Your task to perform on an android device: make emails show in primary in the gmail app Image 0: 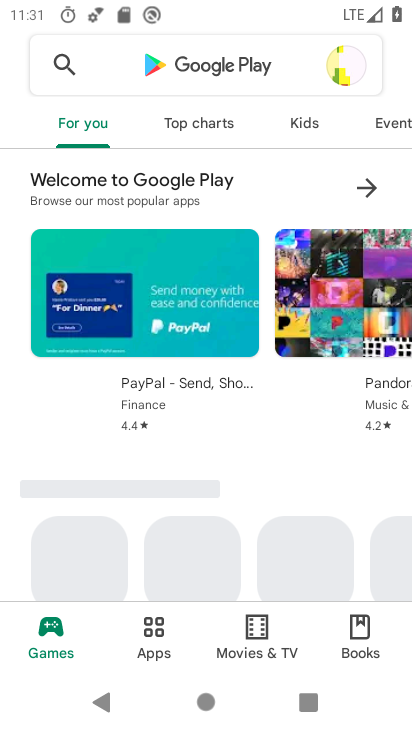
Step 0: press home button
Your task to perform on an android device: make emails show in primary in the gmail app Image 1: 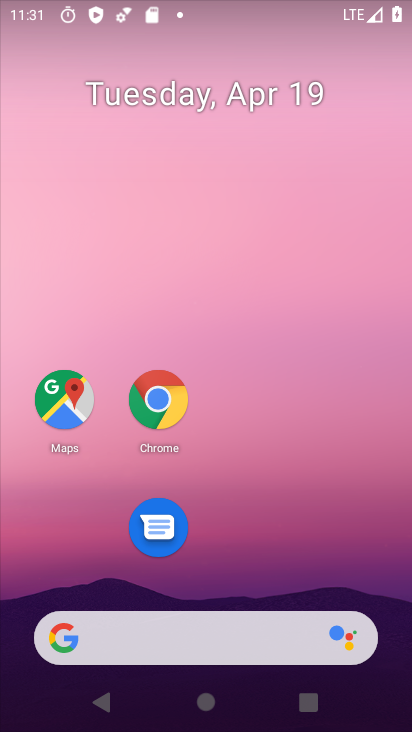
Step 1: drag from (232, 677) to (265, 4)
Your task to perform on an android device: make emails show in primary in the gmail app Image 2: 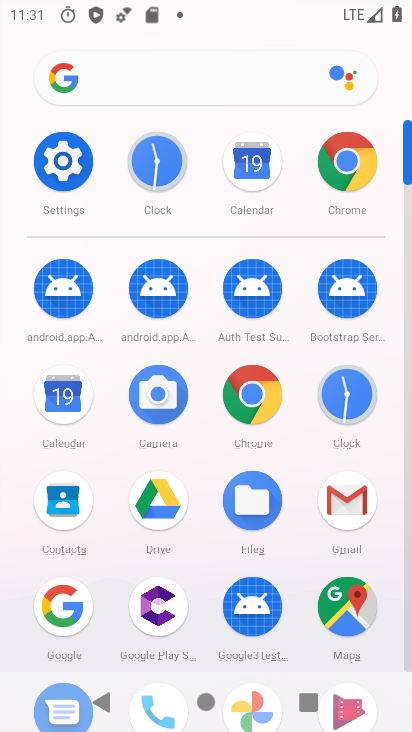
Step 2: click (332, 500)
Your task to perform on an android device: make emails show in primary in the gmail app Image 3: 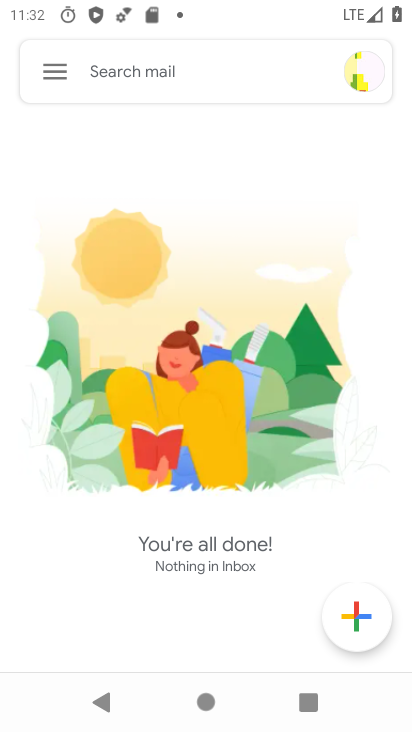
Step 3: click (38, 90)
Your task to perform on an android device: make emails show in primary in the gmail app Image 4: 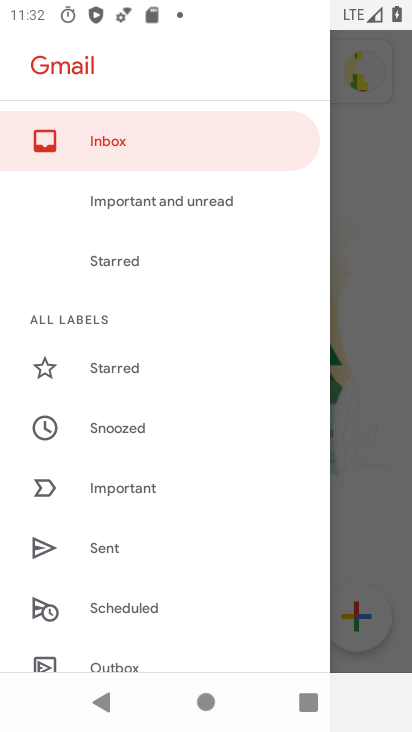
Step 4: drag from (120, 508) to (189, 93)
Your task to perform on an android device: make emails show in primary in the gmail app Image 5: 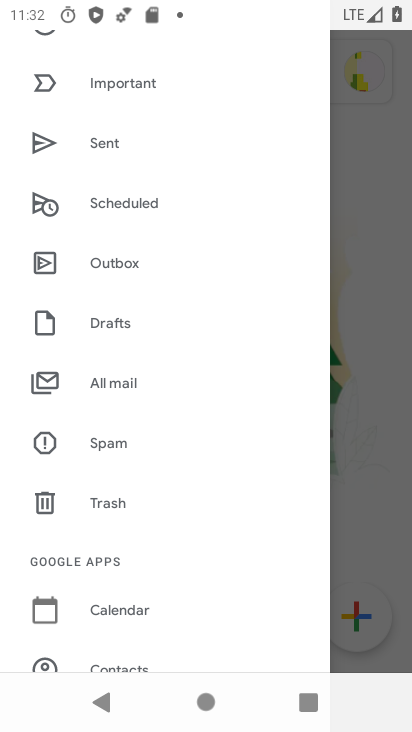
Step 5: drag from (127, 480) to (161, 258)
Your task to perform on an android device: make emails show in primary in the gmail app Image 6: 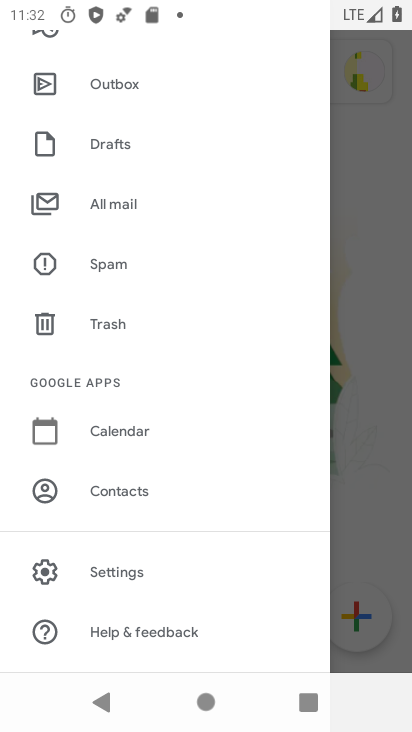
Step 6: click (109, 572)
Your task to perform on an android device: make emails show in primary in the gmail app Image 7: 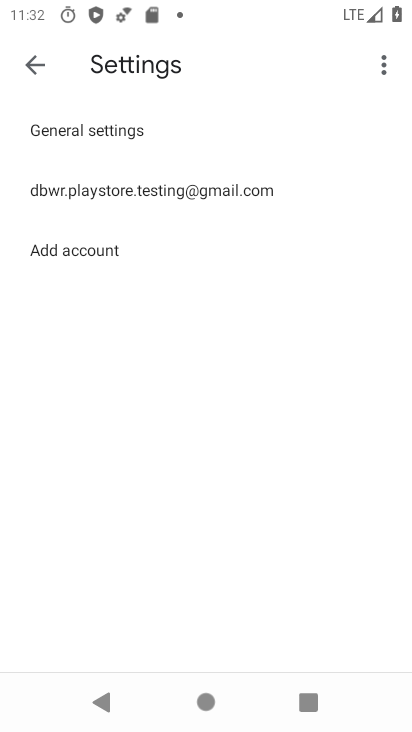
Step 7: click (168, 203)
Your task to perform on an android device: make emails show in primary in the gmail app Image 8: 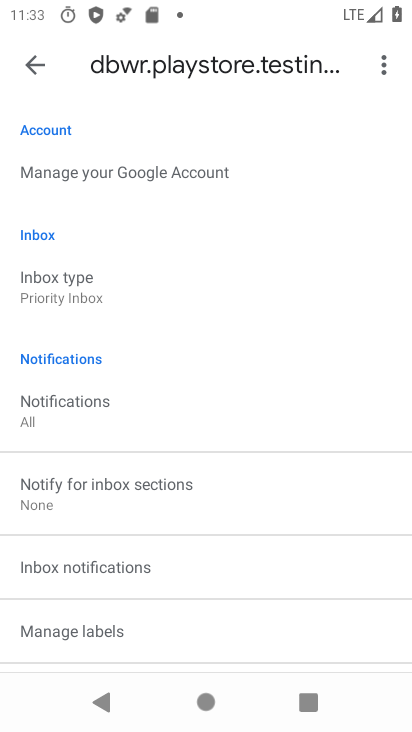
Step 8: click (108, 296)
Your task to perform on an android device: make emails show in primary in the gmail app Image 9: 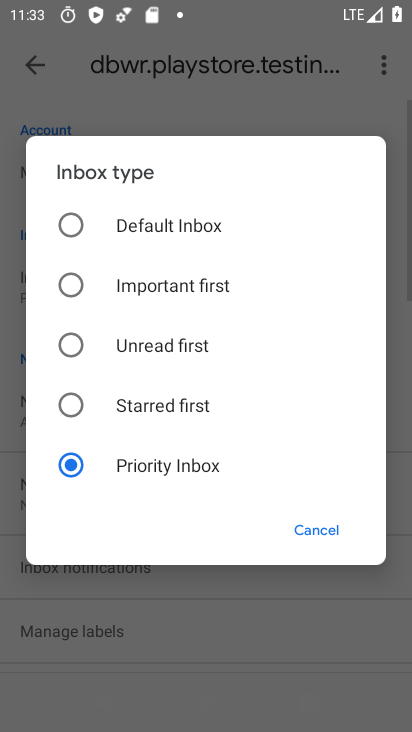
Step 9: click (127, 225)
Your task to perform on an android device: make emails show in primary in the gmail app Image 10: 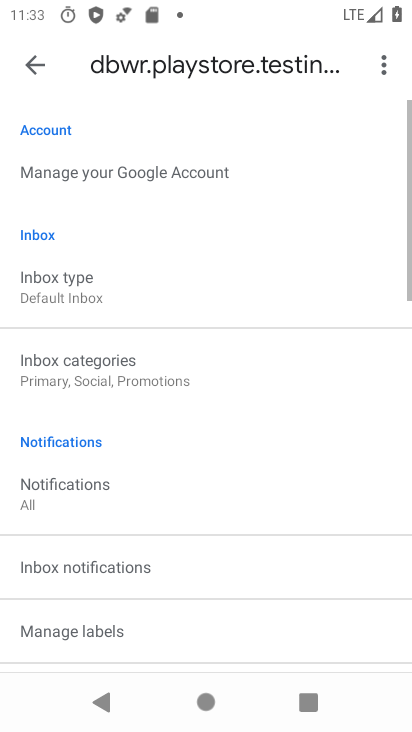
Step 10: click (74, 375)
Your task to perform on an android device: make emails show in primary in the gmail app Image 11: 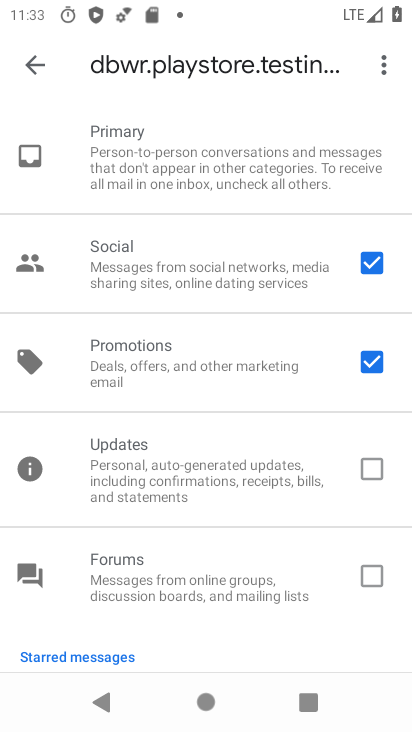
Step 11: click (372, 271)
Your task to perform on an android device: make emails show in primary in the gmail app Image 12: 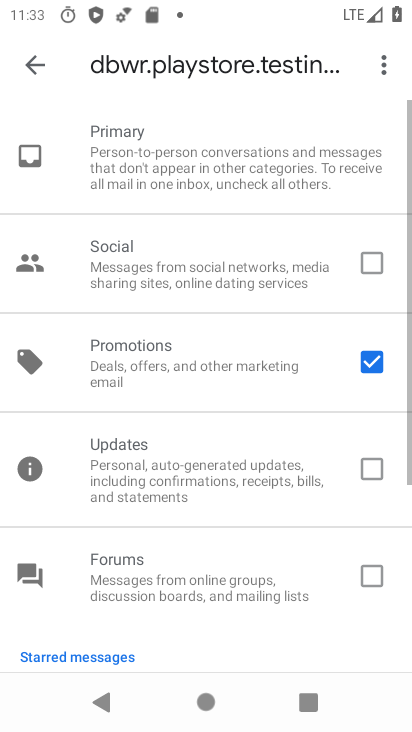
Step 12: click (377, 358)
Your task to perform on an android device: make emails show in primary in the gmail app Image 13: 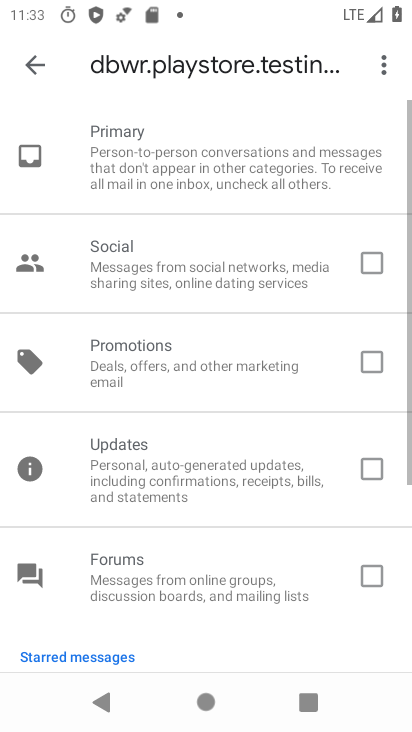
Step 13: click (252, 161)
Your task to perform on an android device: make emails show in primary in the gmail app Image 14: 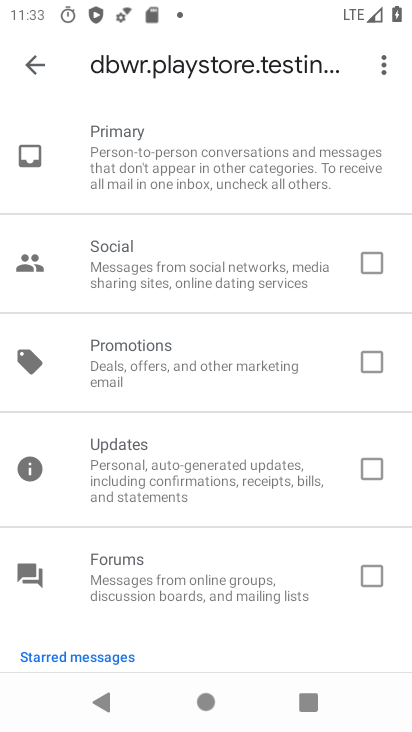
Step 14: task complete